Your task to perform on an android device: Go to sound settings Image 0: 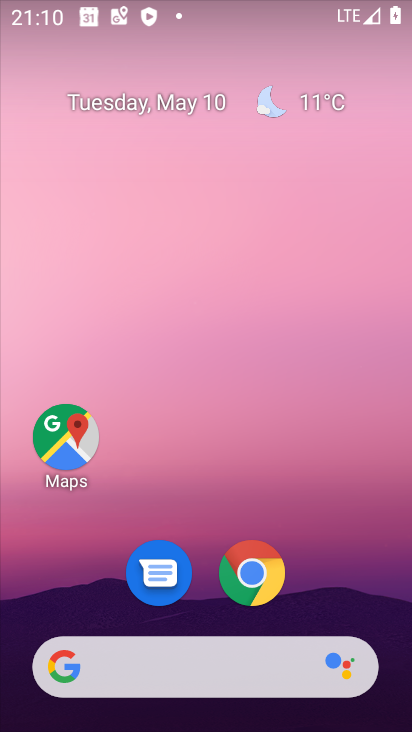
Step 0: drag from (378, 611) to (372, 4)
Your task to perform on an android device: Go to sound settings Image 1: 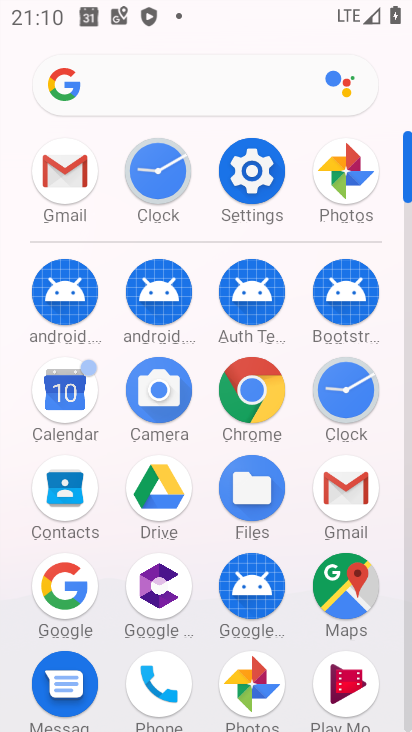
Step 1: click (253, 181)
Your task to perform on an android device: Go to sound settings Image 2: 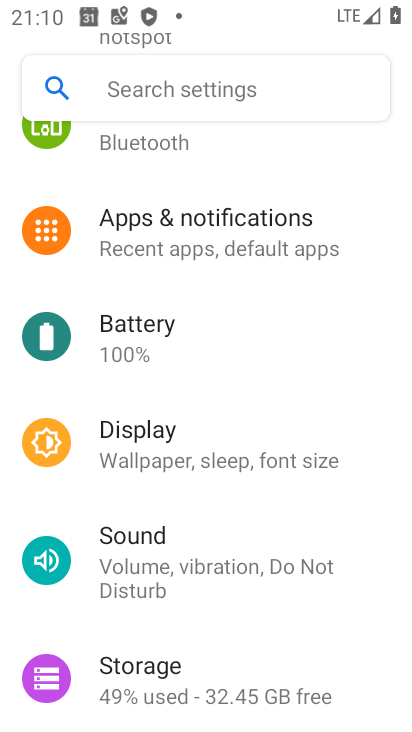
Step 2: click (138, 563)
Your task to perform on an android device: Go to sound settings Image 3: 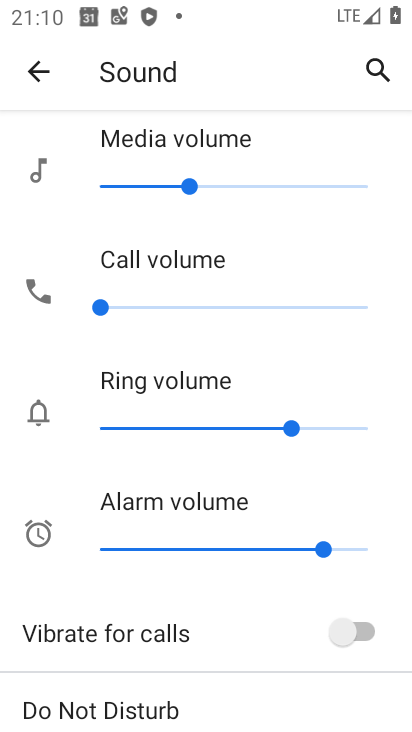
Step 3: task complete